Your task to perform on an android device: manage bookmarks in the chrome app Image 0: 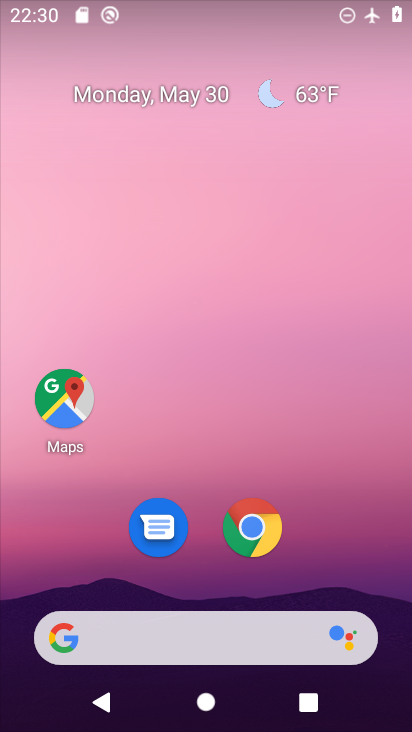
Step 0: drag from (332, 501) to (337, 257)
Your task to perform on an android device: manage bookmarks in the chrome app Image 1: 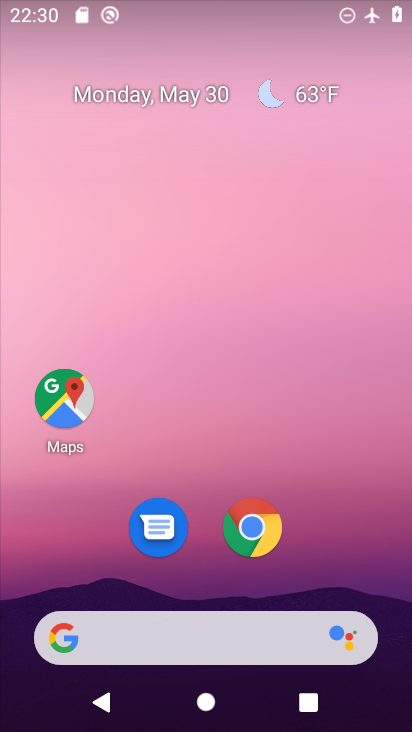
Step 1: drag from (283, 578) to (314, 189)
Your task to perform on an android device: manage bookmarks in the chrome app Image 2: 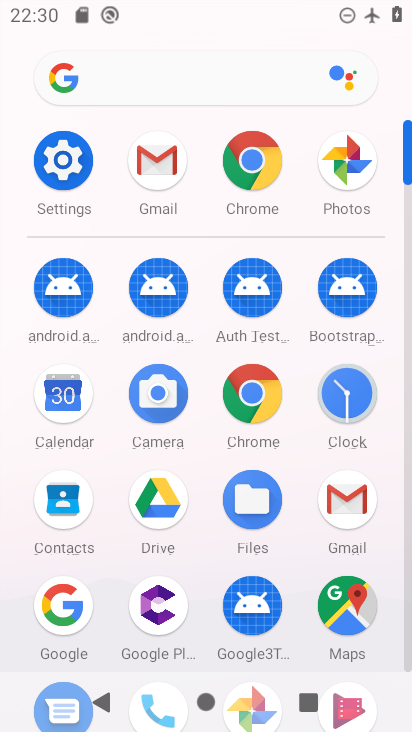
Step 2: click (262, 380)
Your task to perform on an android device: manage bookmarks in the chrome app Image 3: 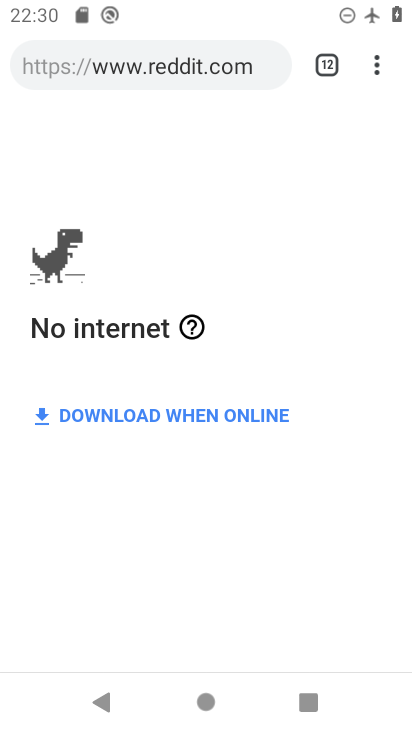
Step 3: click (382, 59)
Your task to perform on an android device: manage bookmarks in the chrome app Image 4: 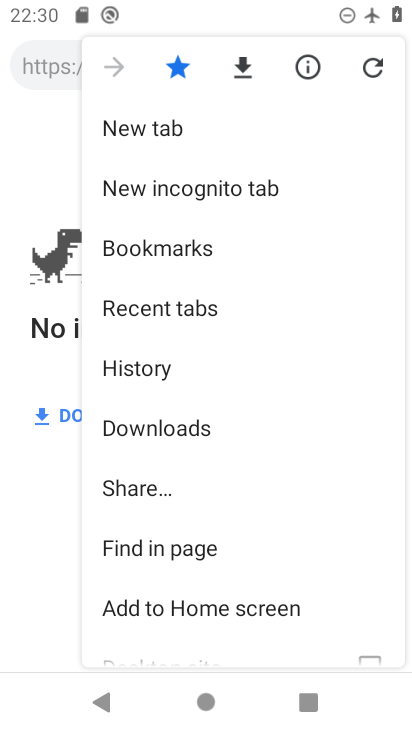
Step 4: click (170, 239)
Your task to perform on an android device: manage bookmarks in the chrome app Image 5: 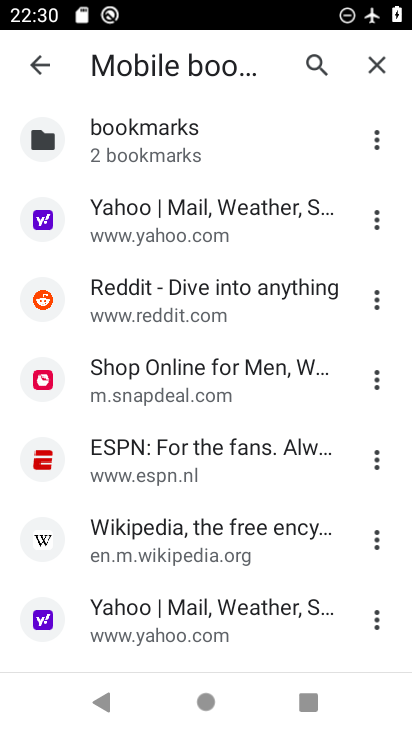
Step 5: click (145, 216)
Your task to perform on an android device: manage bookmarks in the chrome app Image 6: 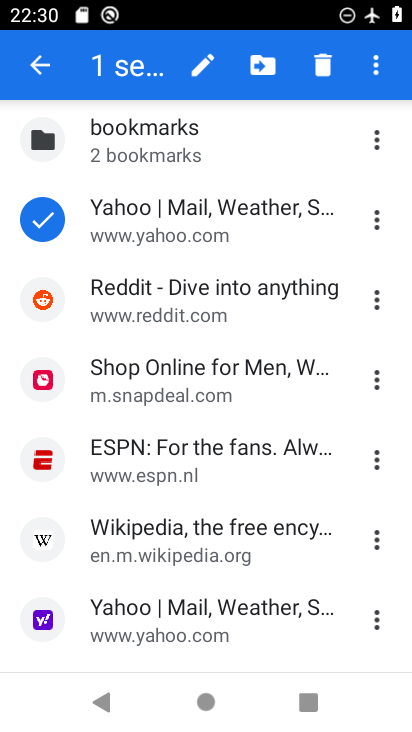
Step 6: click (255, 58)
Your task to perform on an android device: manage bookmarks in the chrome app Image 7: 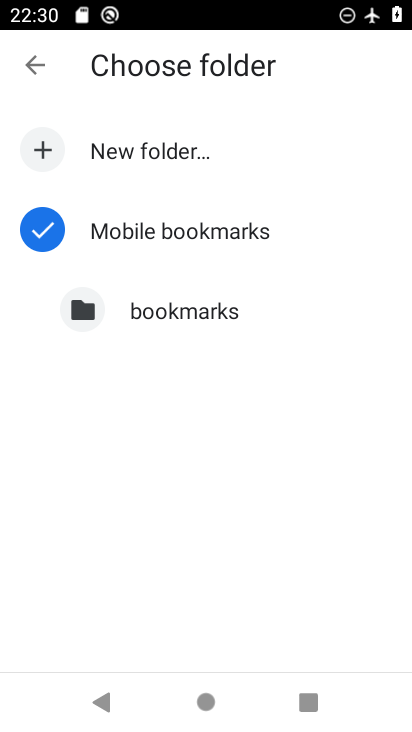
Step 7: click (179, 306)
Your task to perform on an android device: manage bookmarks in the chrome app Image 8: 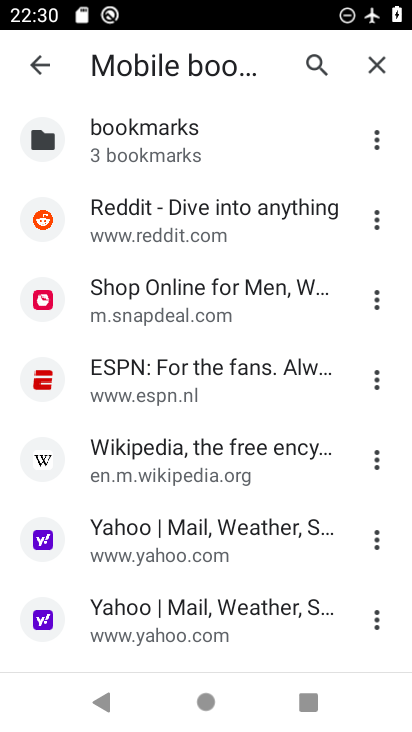
Step 8: task complete